Your task to perform on an android device: turn off location history Image 0: 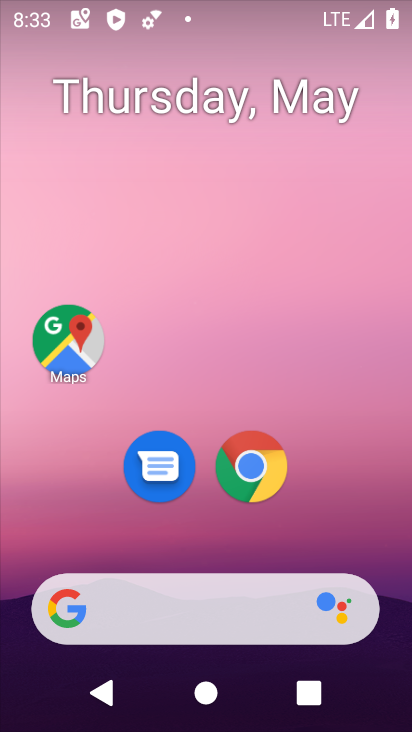
Step 0: click (64, 356)
Your task to perform on an android device: turn off location history Image 1: 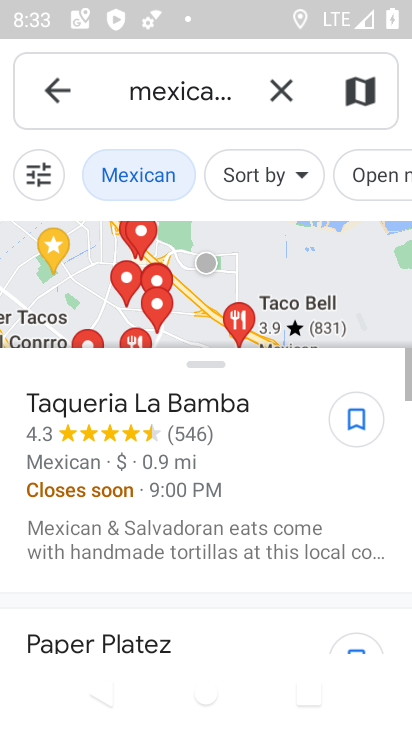
Step 1: click (273, 105)
Your task to perform on an android device: turn off location history Image 2: 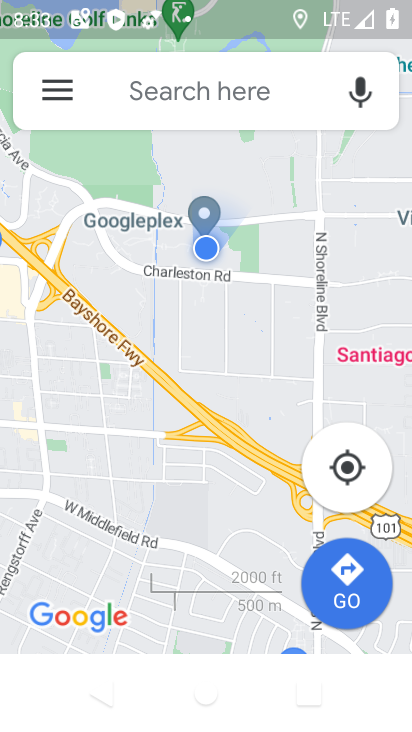
Step 2: click (66, 97)
Your task to perform on an android device: turn off location history Image 3: 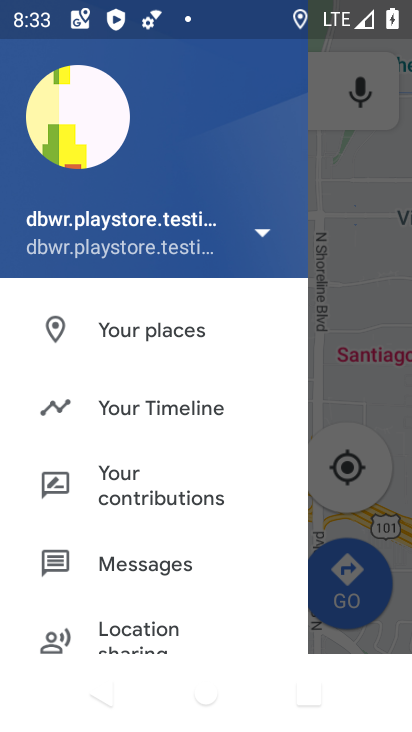
Step 3: click (134, 411)
Your task to perform on an android device: turn off location history Image 4: 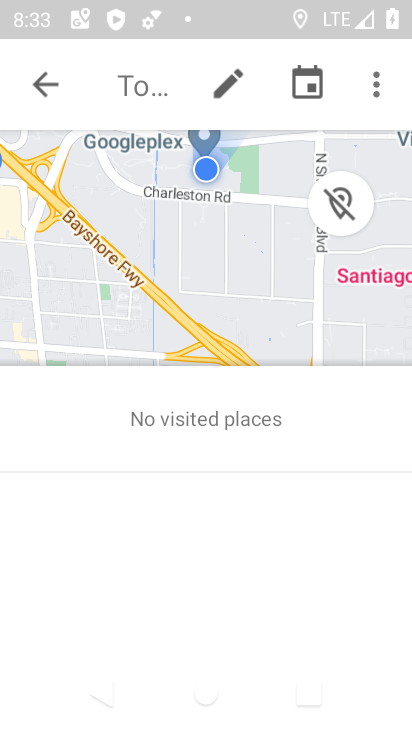
Step 4: click (375, 87)
Your task to perform on an android device: turn off location history Image 5: 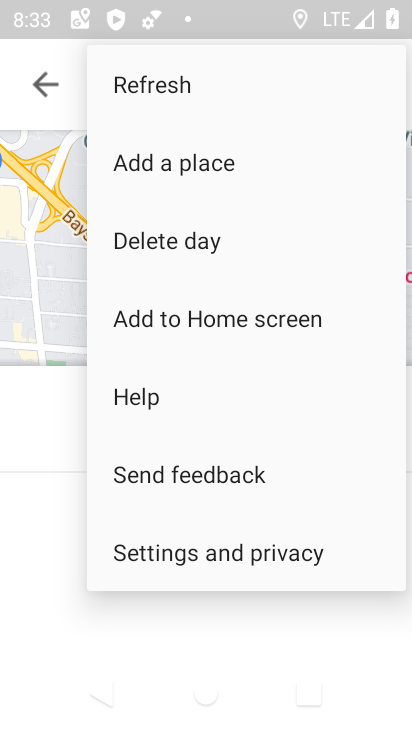
Step 5: drag from (325, 448) to (312, 265)
Your task to perform on an android device: turn off location history Image 6: 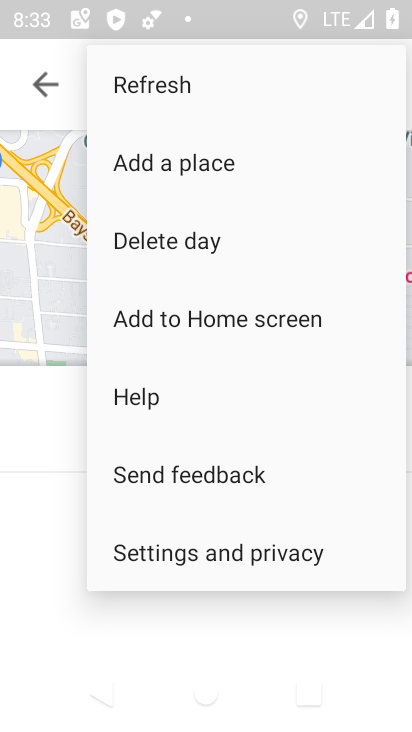
Step 6: click (200, 561)
Your task to perform on an android device: turn off location history Image 7: 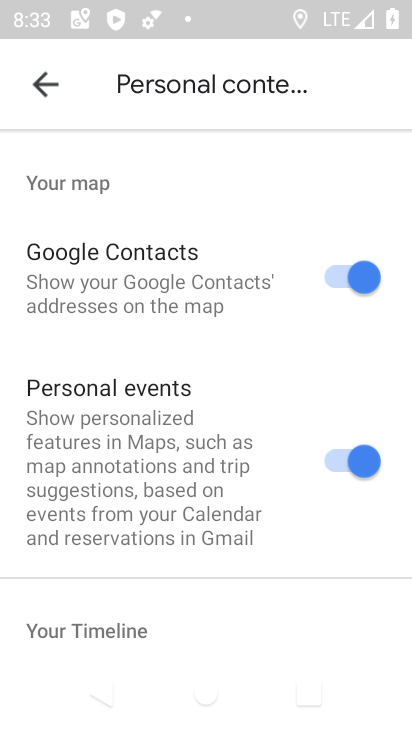
Step 7: drag from (202, 556) to (189, 4)
Your task to perform on an android device: turn off location history Image 8: 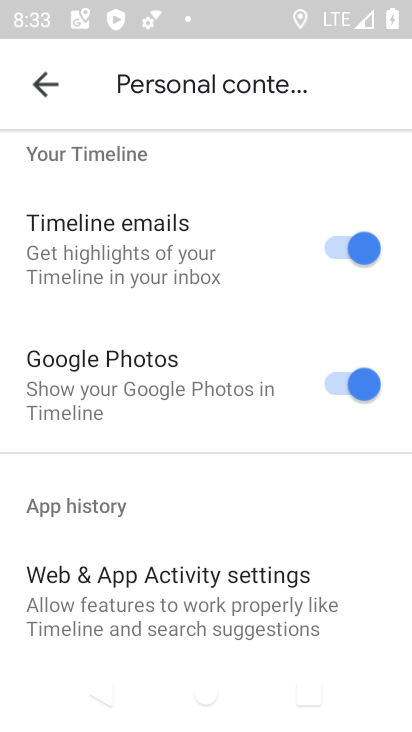
Step 8: drag from (204, 528) to (177, 134)
Your task to perform on an android device: turn off location history Image 9: 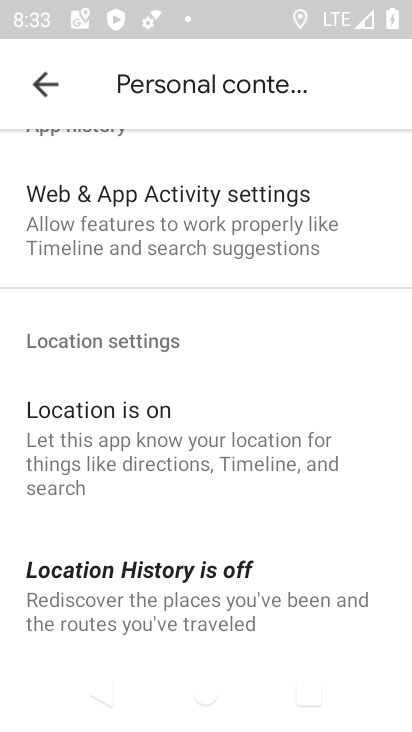
Step 9: drag from (167, 514) to (164, 332)
Your task to perform on an android device: turn off location history Image 10: 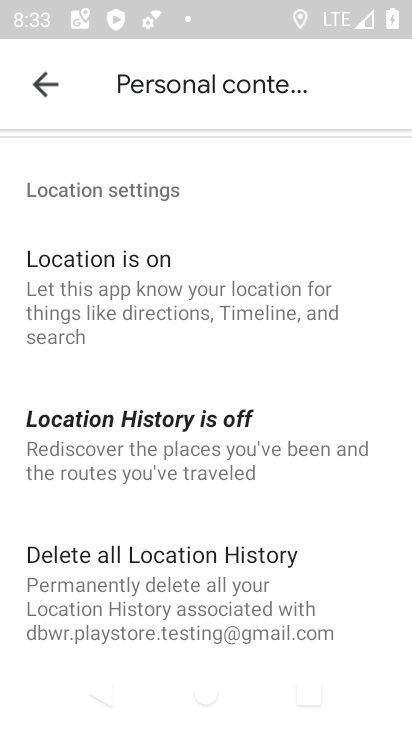
Step 10: click (133, 461)
Your task to perform on an android device: turn off location history Image 11: 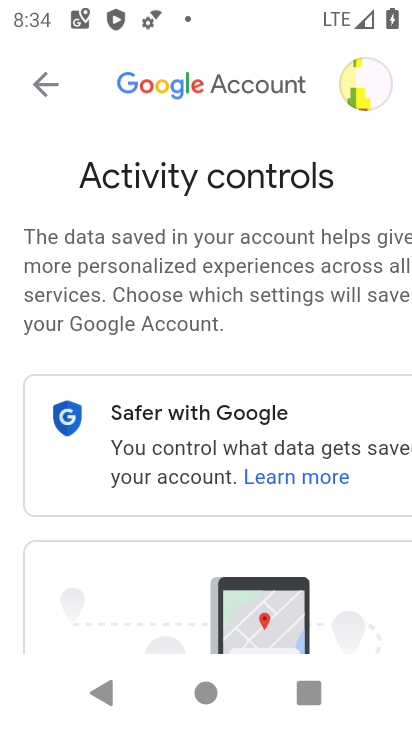
Step 11: drag from (228, 583) to (235, 122)
Your task to perform on an android device: turn off location history Image 12: 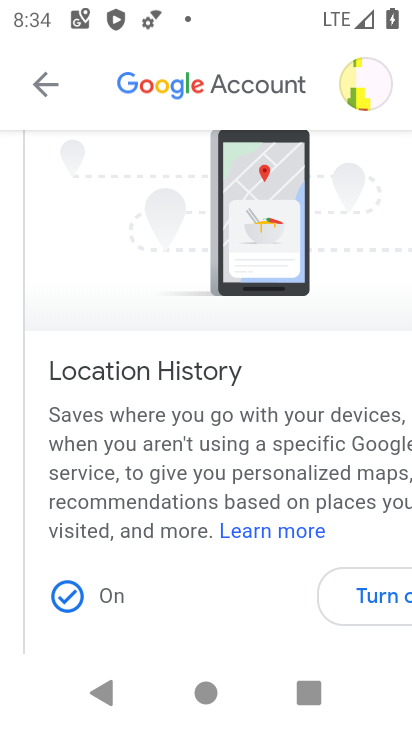
Step 12: drag from (220, 340) to (206, 230)
Your task to perform on an android device: turn off location history Image 13: 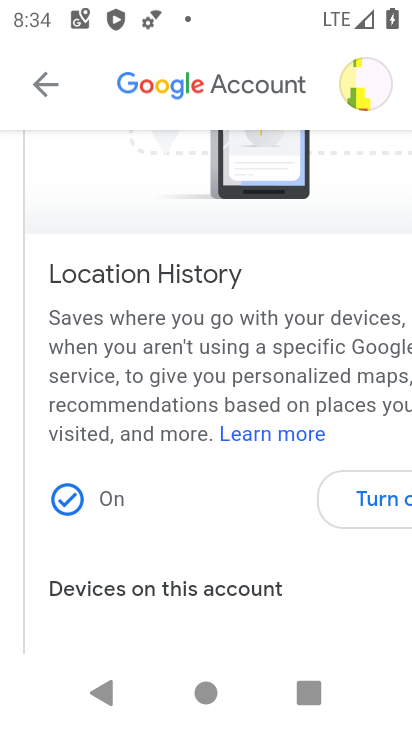
Step 13: click (386, 591)
Your task to perform on an android device: turn off location history Image 14: 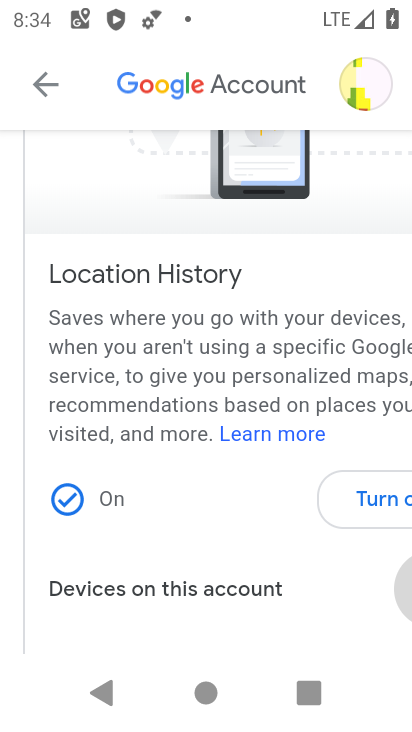
Step 14: click (384, 516)
Your task to perform on an android device: turn off location history Image 15: 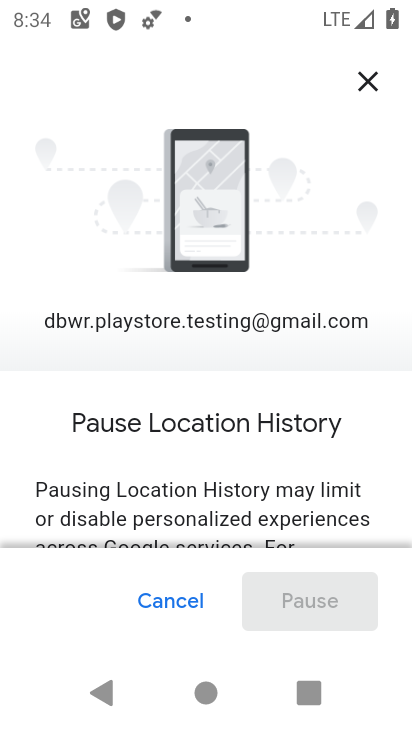
Step 15: drag from (201, 482) to (147, 2)
Your task to perform on an android device: turn off location history Image 16: 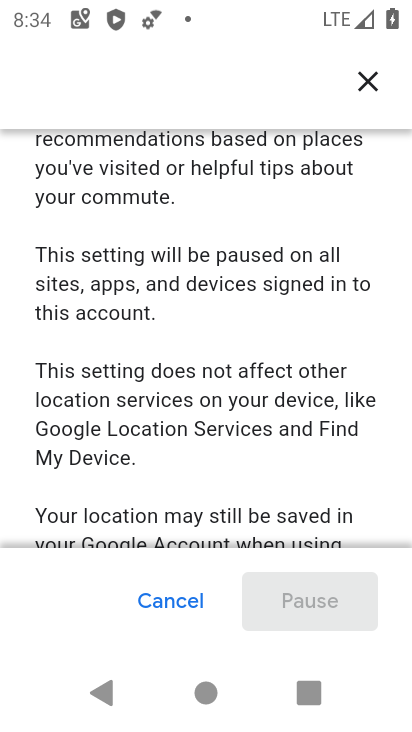
Step 16: drag from (198, 432) to (200, 44)
Your task to perform on an android device: turn off location history Image 17: 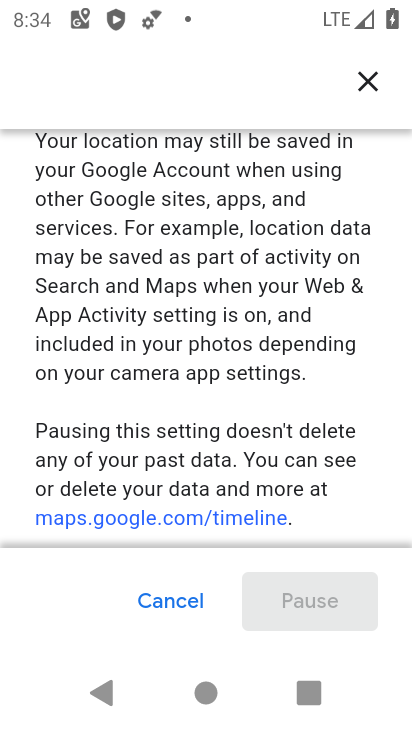
Step 17: drag from (195, 458) to (187, 128)
Your task to perform on an android device: turn off location history Image 18: 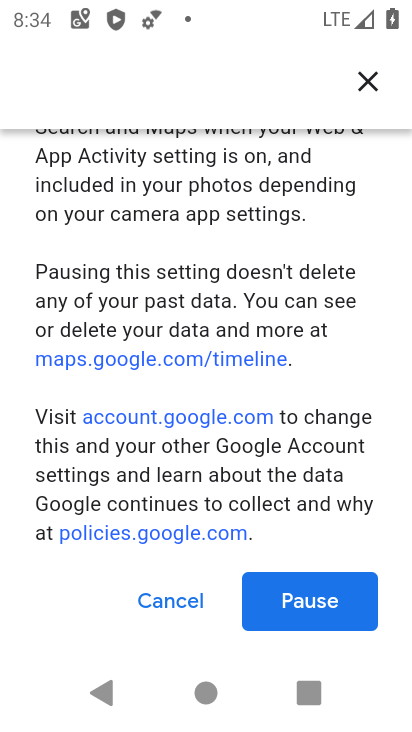
Step 18: click (307, 606)
Your task to perform on an android device: turn off location history Image 19: 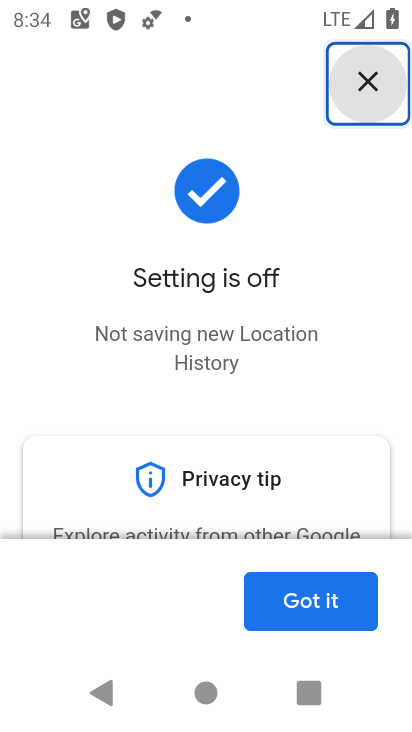
Step 19: click (307, 606)
Your task to perform on an android device: turn off location history Image 20: 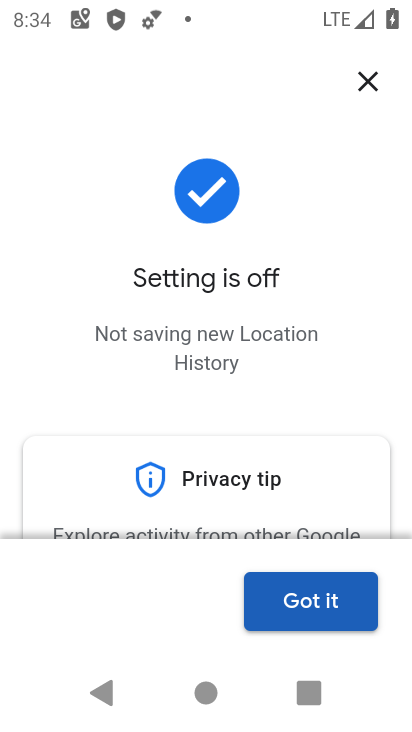
Step 20: click (322, 598)
Your task to perform on an android device: turn off location history Image 21: 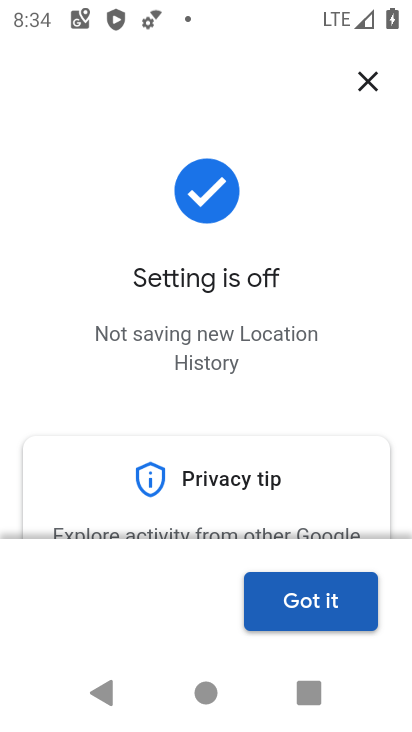
Step 21: drag from (279, 482) to (280, 264)
Your task to perform on an android device: turn off location history Image 22: 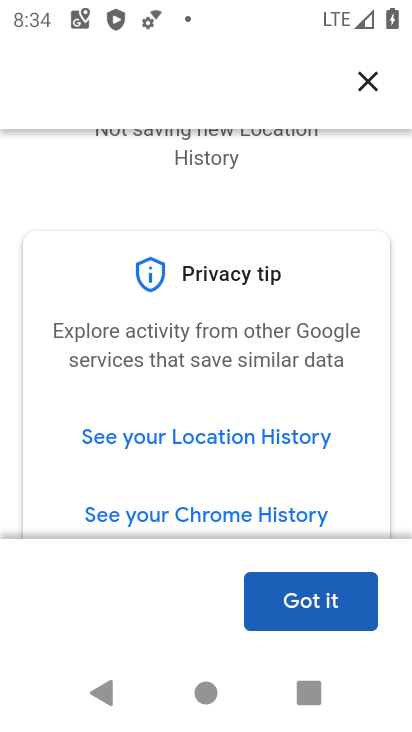
Step 22: click (308, 611)
Your task to perform on an android device: turn off location history Image 23: 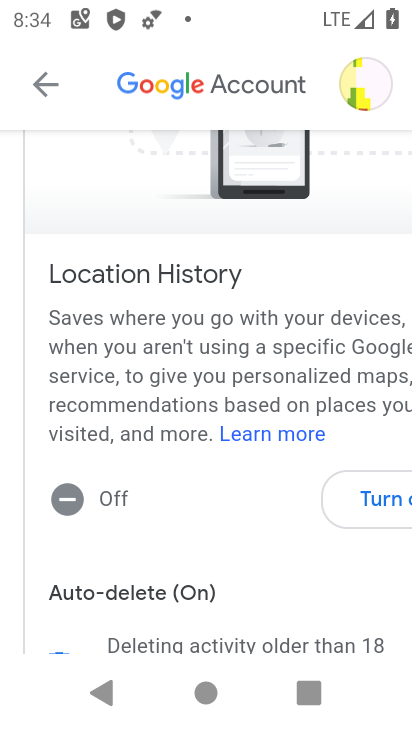
Step 23: task complete